Your task to perform on an android device: turn on javascript in the chrome app Image 0: 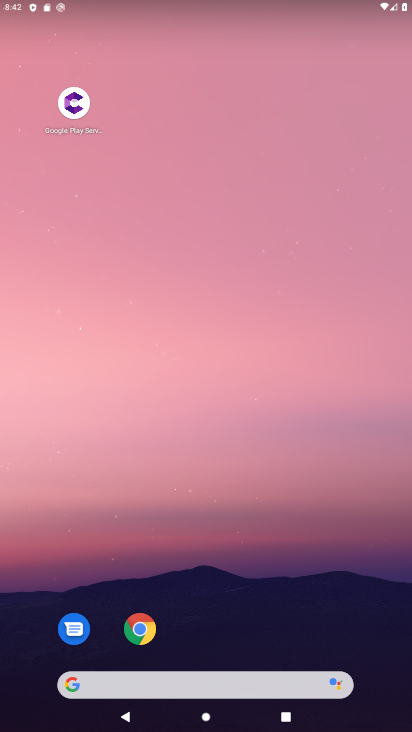
Step 0: click (145, 630)
Your task to perform on an android device: turn on javascript in the chrome app Image 1: 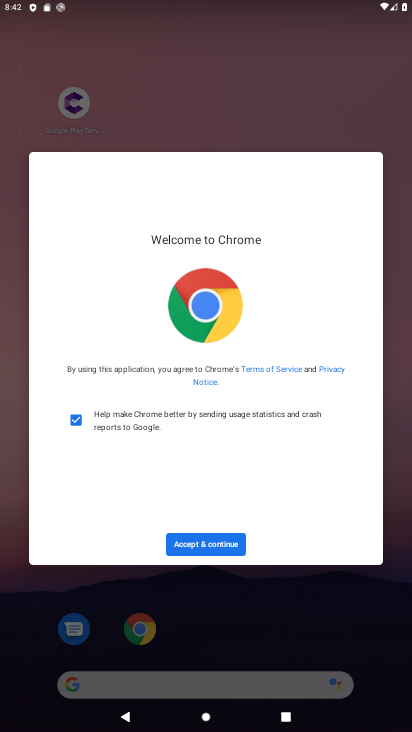
Step 1: click (194, 557)
Your task to perform on an android device: turn on javascript in the chrome app Image 2: 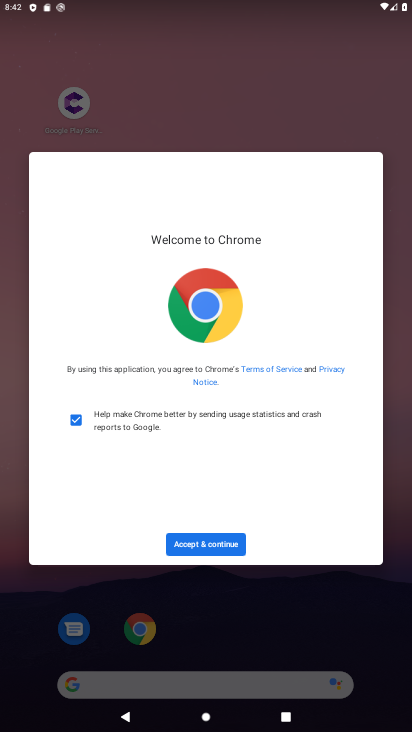
Step 2: click (194, 557)
Your task to perform on an android device: turn on javascript in the chrome app Image 3: 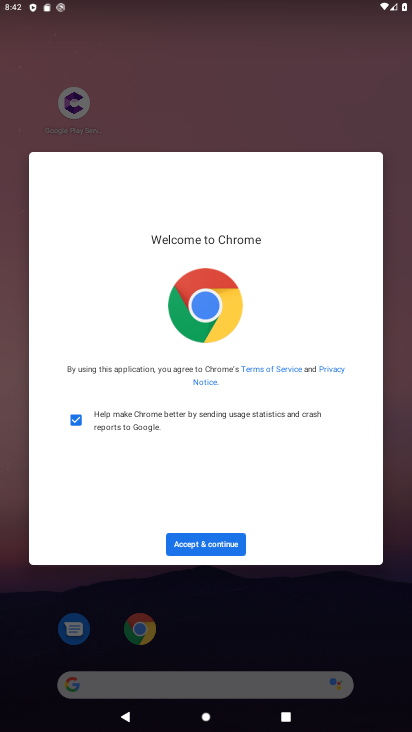
Step 3: click (194, 542)
Your task to perform on an android device: turn on javascript in the chrome app Image 4: 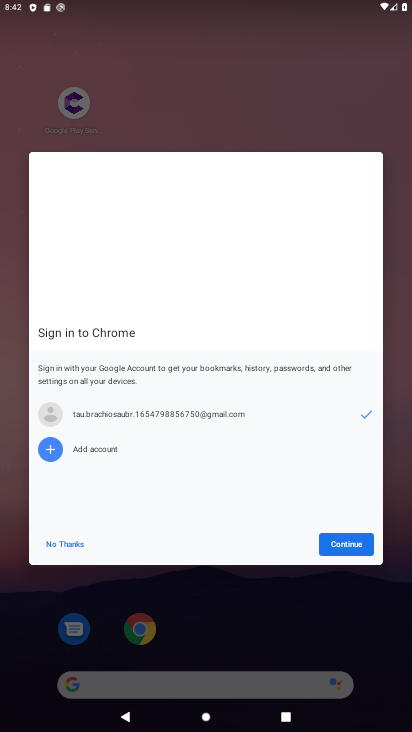
Step 4: click (347, 538)
Your task to perform on an android device: turn on javascript in the chrome app Image 5: 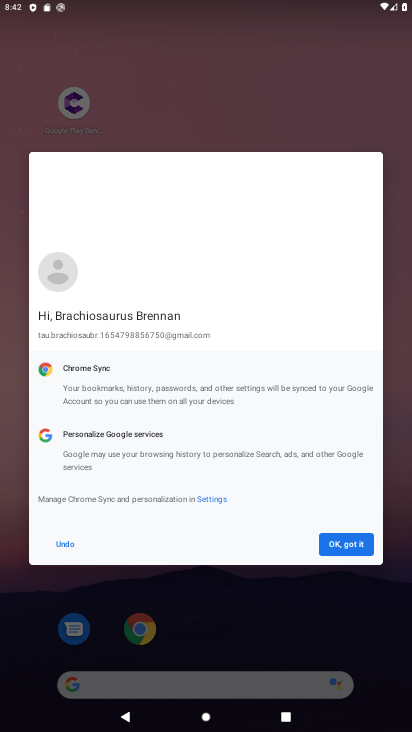
Step 5: click (347, 538)
Your task to perform on an android device: turn on javascript in the chrome app Image 6: 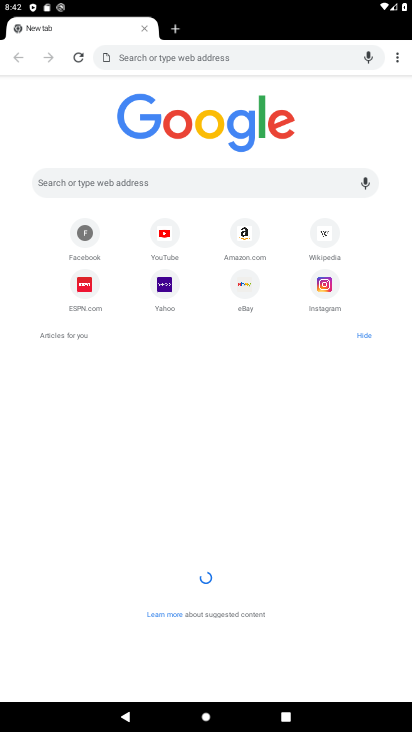
Step 6: click (399, 60)
Your task to perform on an android device: turn on javascript in the chrome app Image 7: 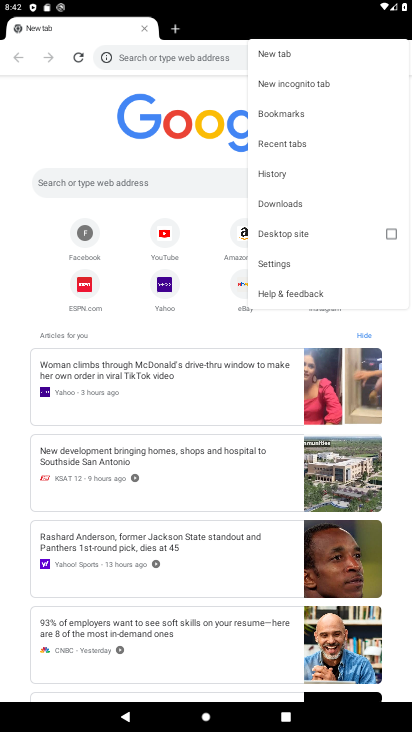
Step 7: click (282, 259)
Your task to perform on an android device: turn on javascript in the chrome app Image 8: 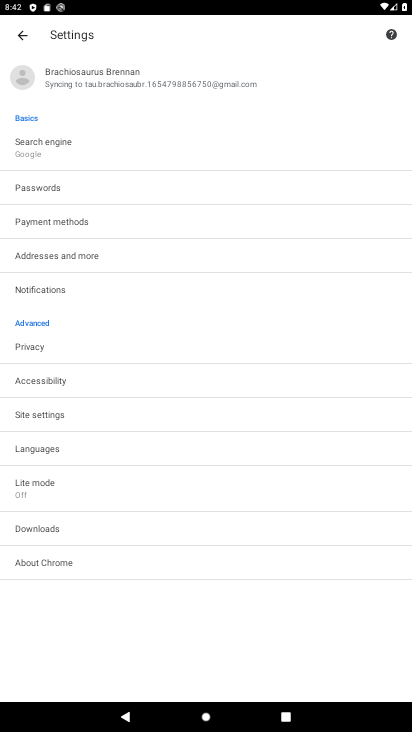
Step 8: click (50, 418)
Your task to perform on an android device: turn on javascript in the chrome app Image 9: 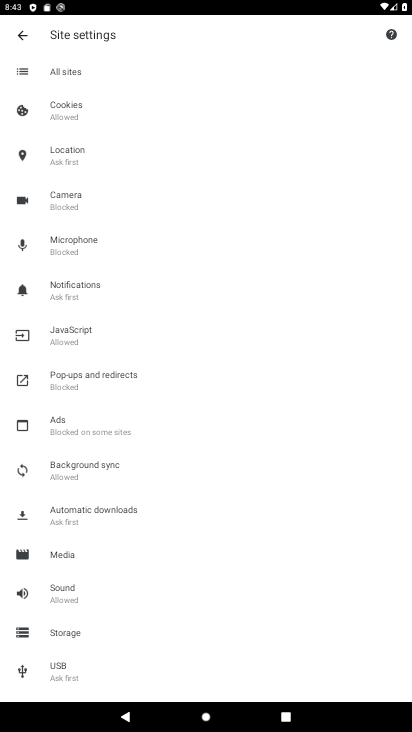
Step 9: click (91, 339)
Your task to perform on an android device: turn on javascript in the chrome app Image 10: 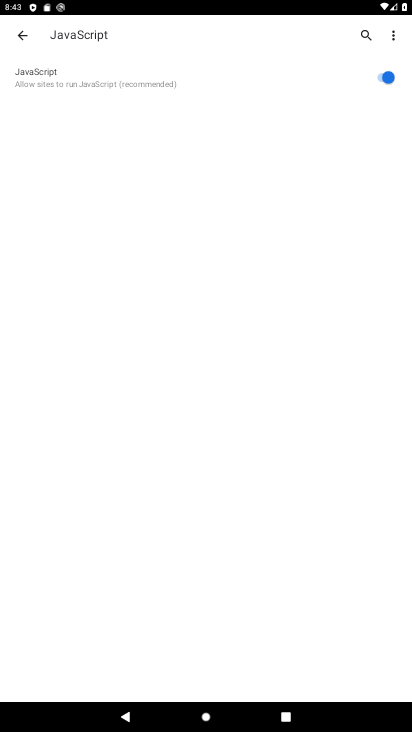
Step 10: task complete